Your task to perform on an android device: Find coffee shops on Maps Image 0: 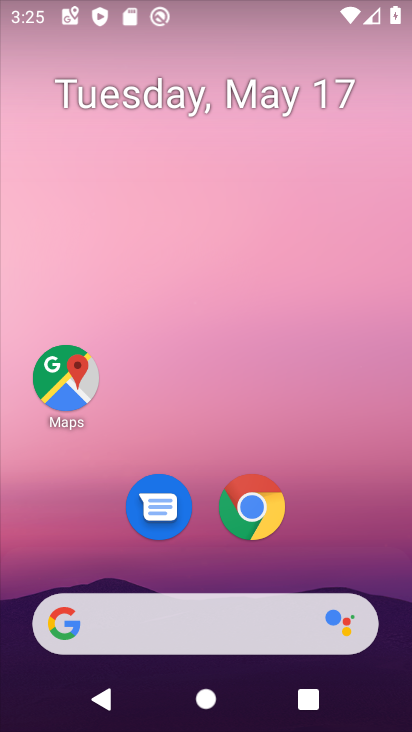
Step 0: click (70, 358)
Your task to perform on an android device: Find coffee shops on Maps Image 1: 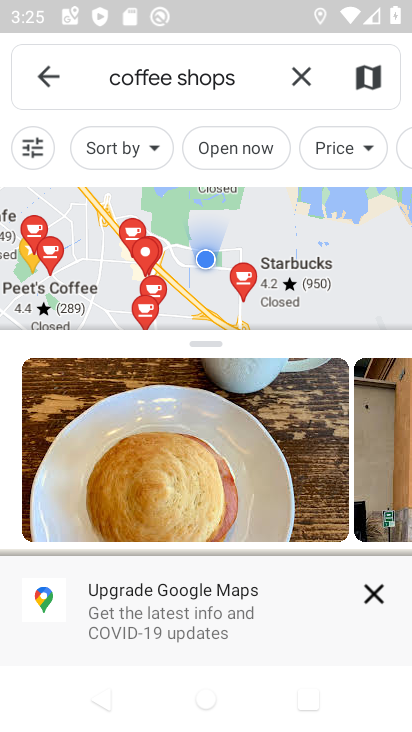
Step 1: task complete